Your task to perform on an android device: Open privacy settings Image 0: 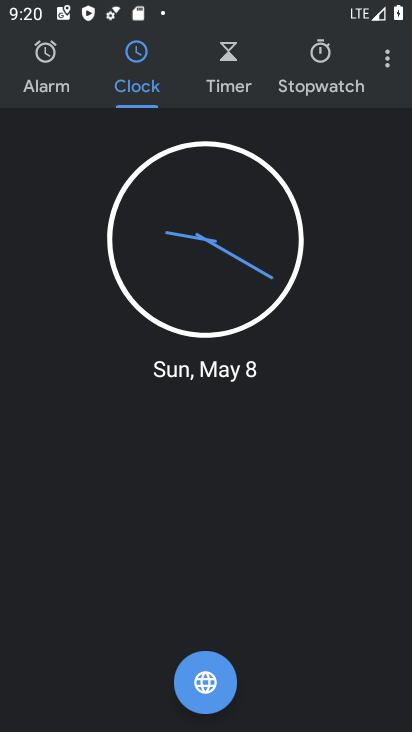
Step 0: press home button
Your task to perform on an android device: Open privacy settings Image 1: 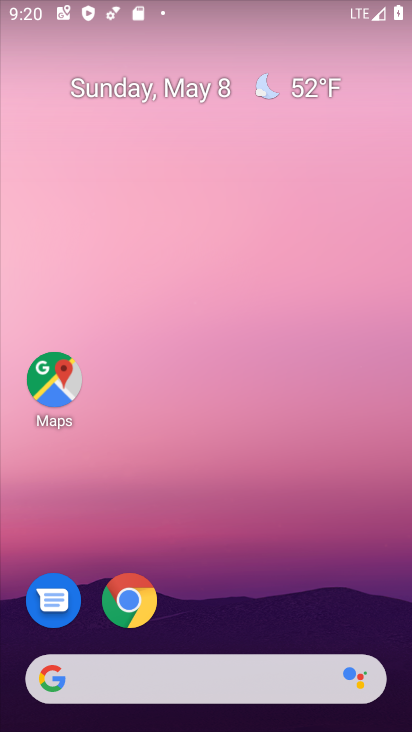
Step 1: drag from (328, 648) to (326, 14)
Your task to perform on an android device: Open privacy settings Image 2: 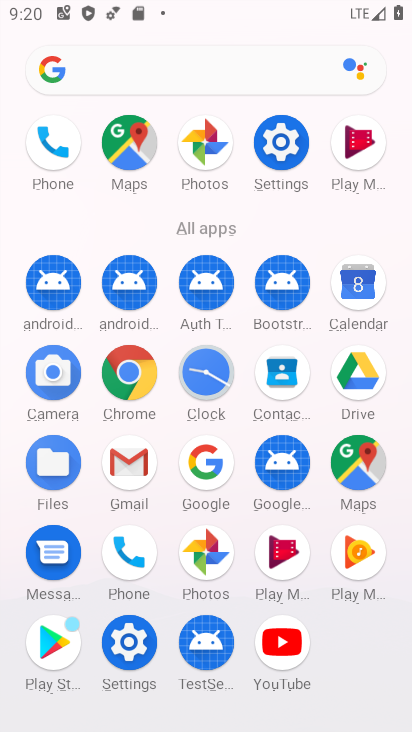
Step 2: click (295, 143)
Your task to perform on an android device: Open privacy settings Image 3: 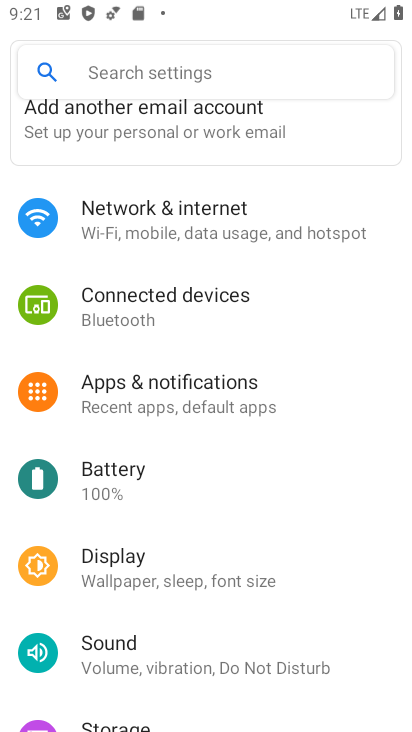
Step 3: drag from (291, 597) to (300, 189)
Your task to perform on an android device: Open privacy settings Image 4: 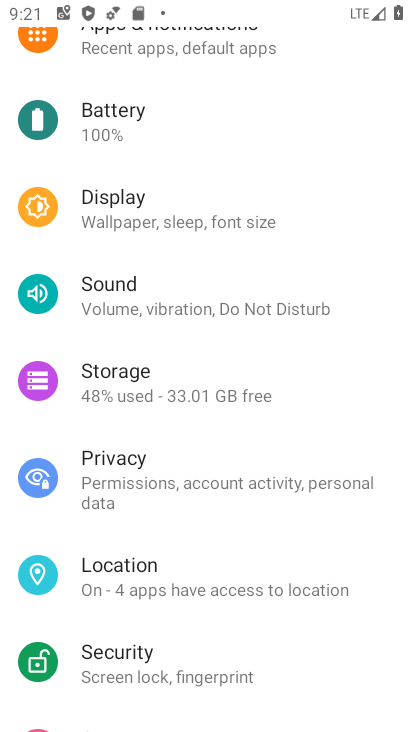
Step 4: click (114, 473)
Your task to perform on an android device: Open privacy settings Image 5: 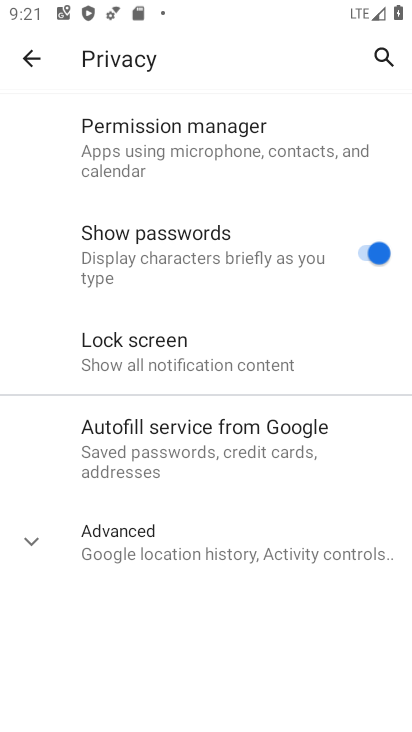
Step 5: task complete